Your task to perform on an android device: Open calendar and show me the second week of next month Image 0: 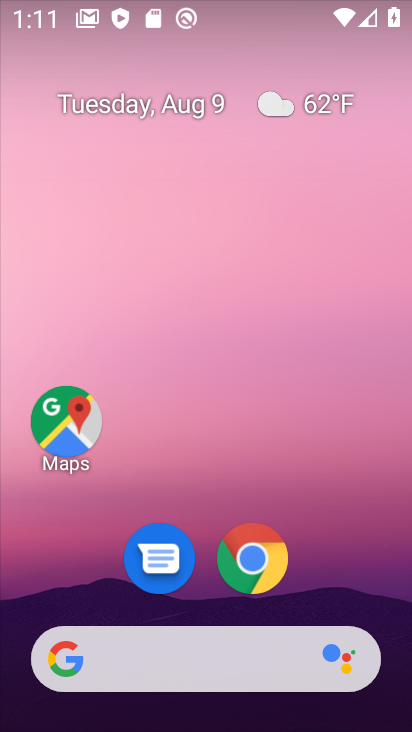
Step 0: drag from (349, 573) to (276, 187)
Your task to perform on an android device: Open calendar and show me the second week of next month Image 1: 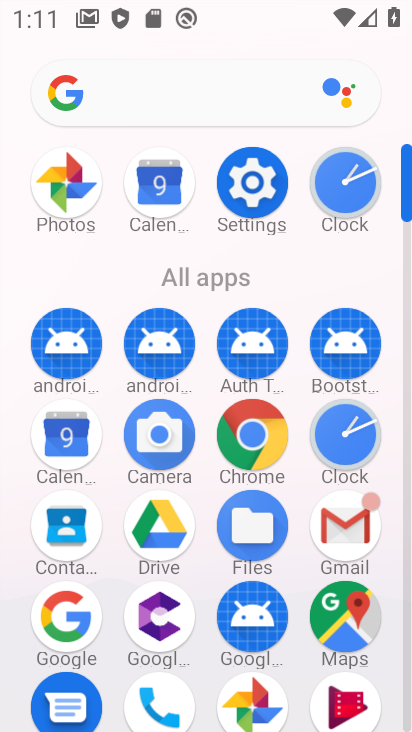
Step 1: click (82, 435)
Your task to perform on an android device: Open calendar and show me the second week of next month Image 2: 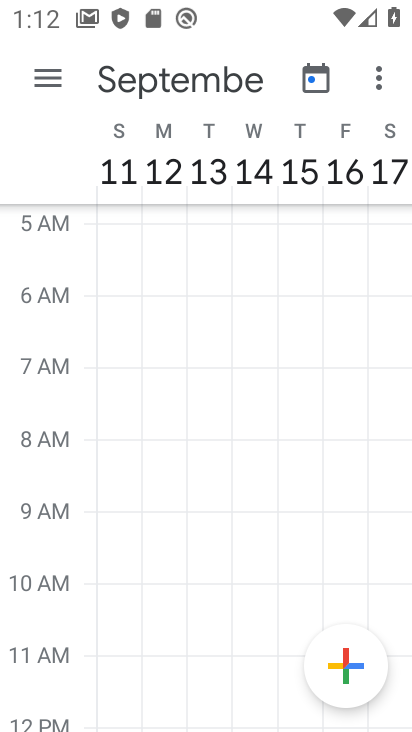
Step 2: task complete